Your task to perform on an android device: open app "Lyft - Rideshare, Bikes, Scooters & Transit" Image 0: 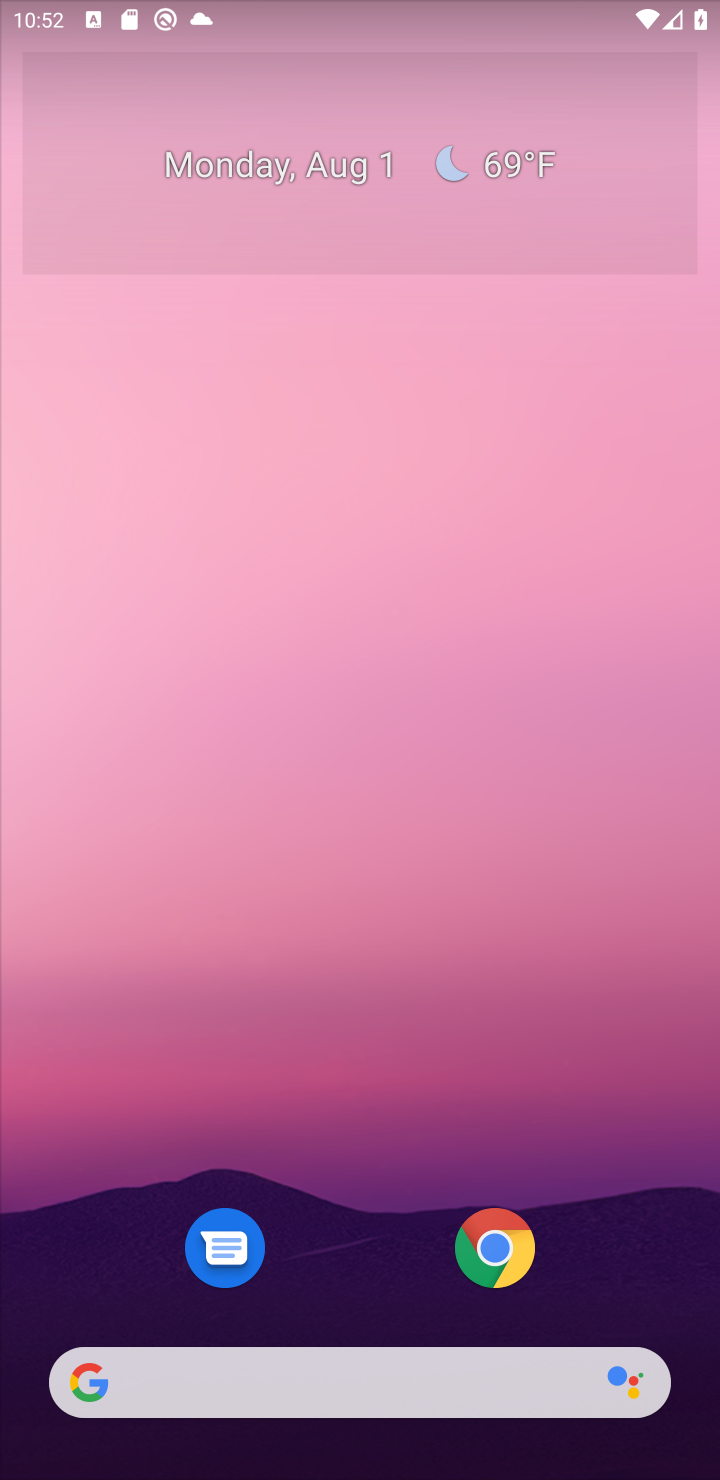
Step 0: drag from (340, 1080) to (391, 157)
Your task to perform on an android device: open app "Lyft - Rideshare, Bikes, Scooters & Transit" Image 1: 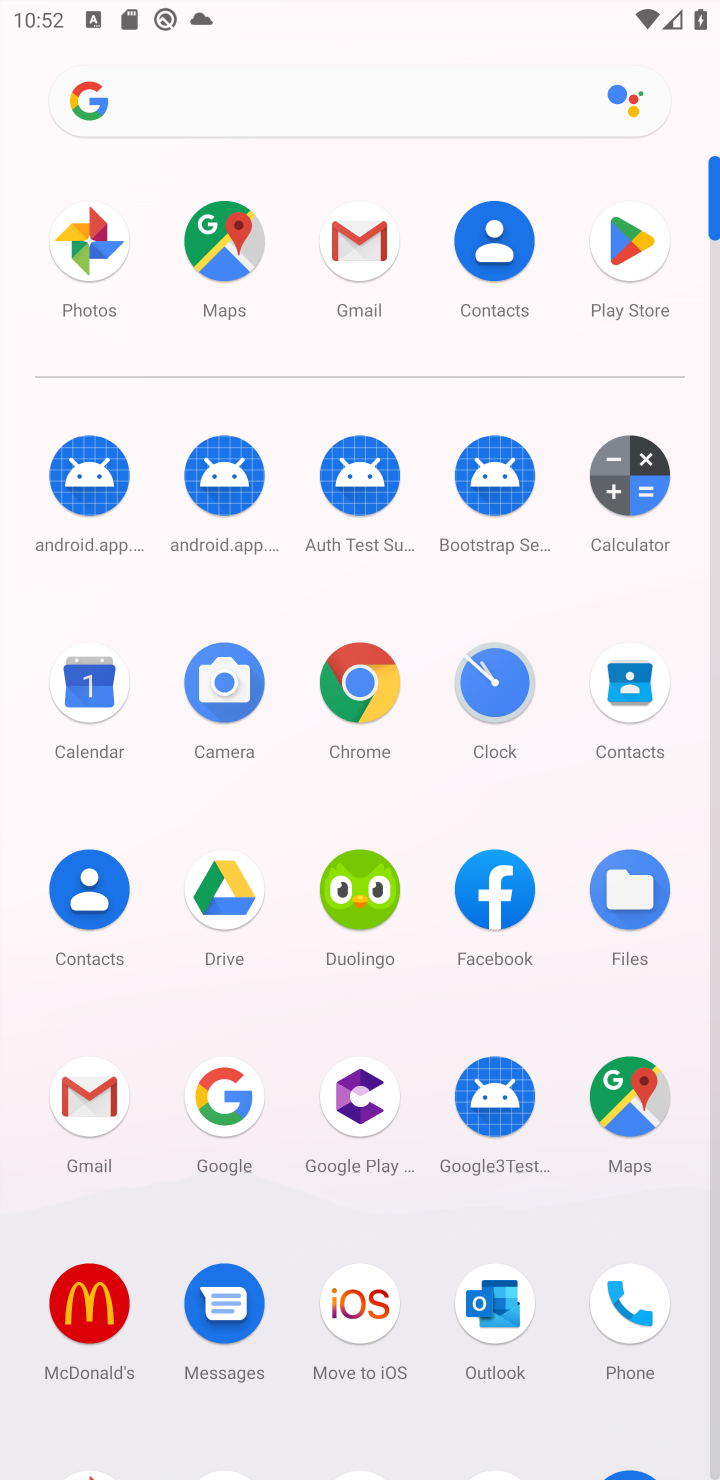
Step 1: drag from (423, 1124) to (441, 315)
Your task to perform on an android device: open app "Lyft - Rideshare, Bikes, Scooters & Transit" Image 2: 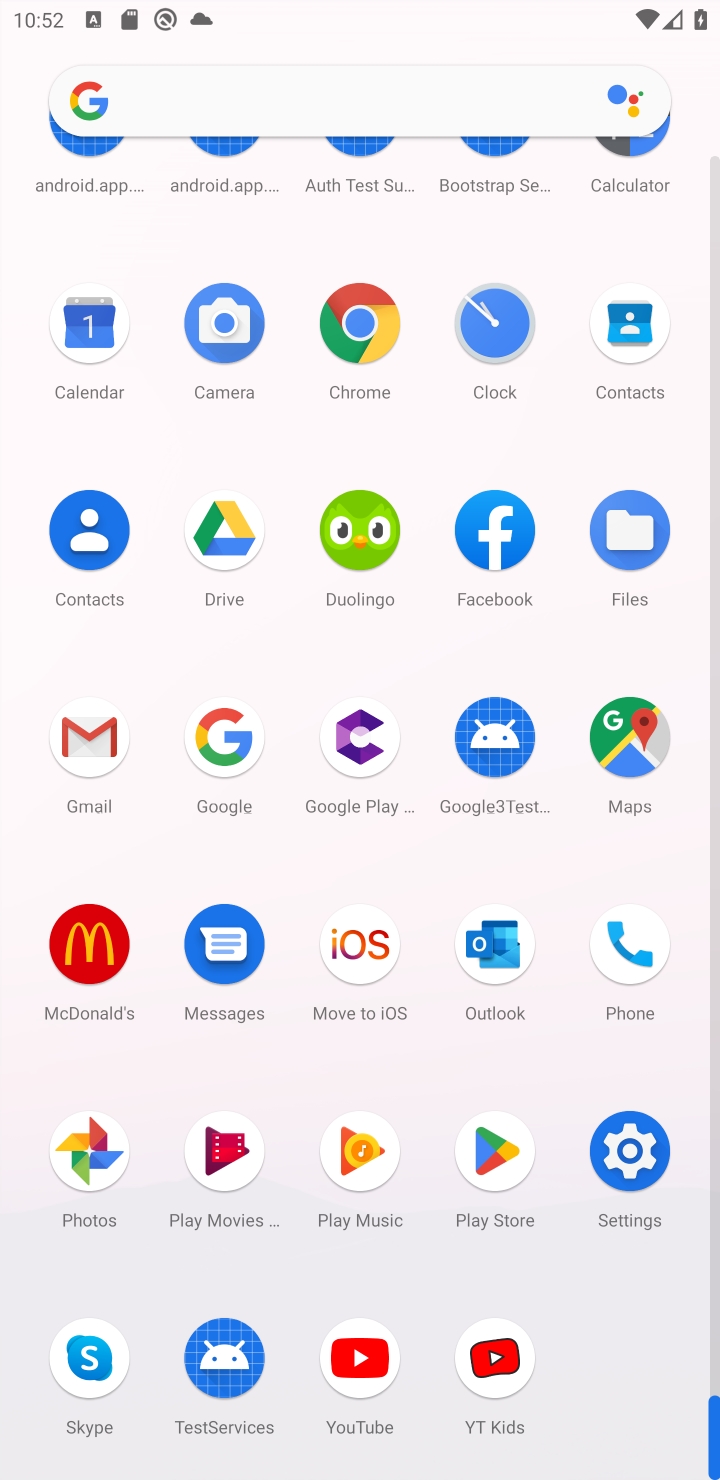
Step 2: click (492, 1142)
Your task to perform on an android device: open app "Lyft - Rideshare, Bikes, Scooters & Transit" Image 3: 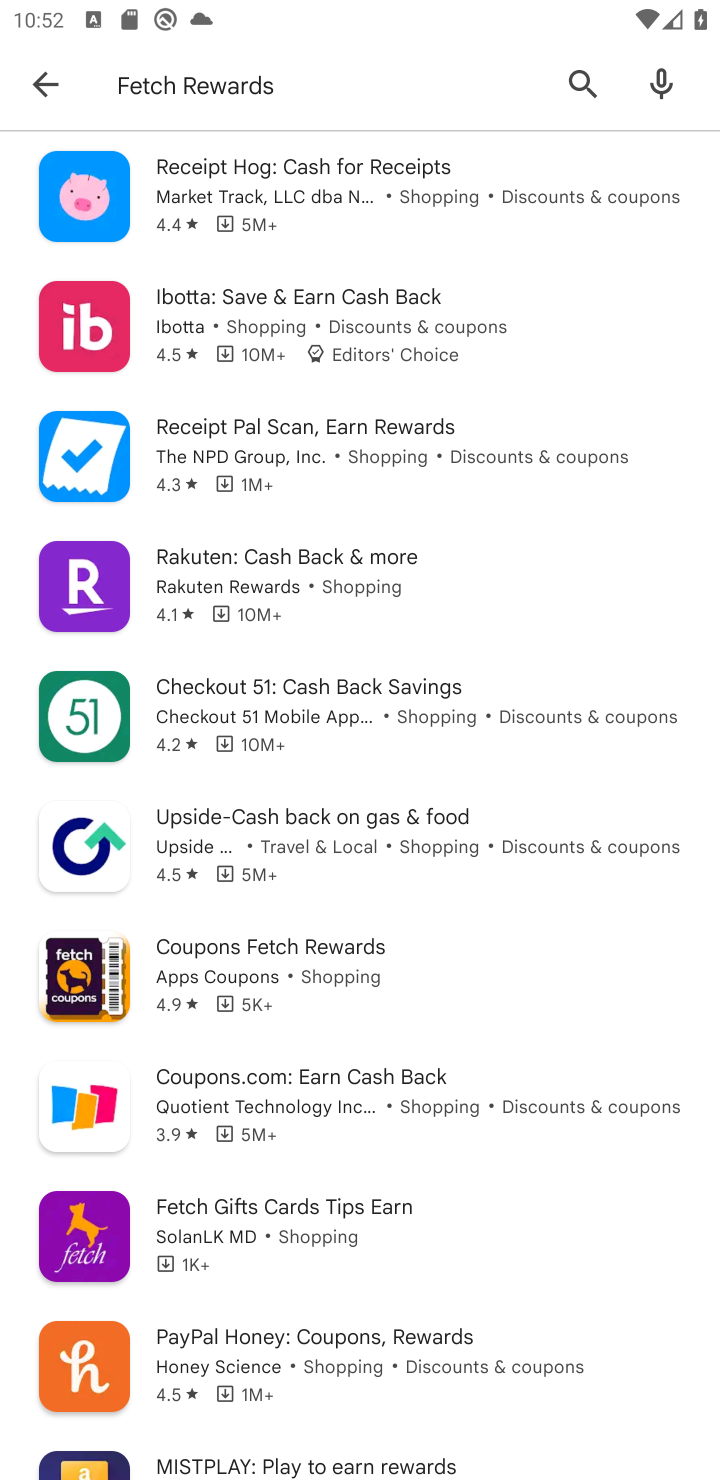
Step 3: click (372, 72)
Your task to perform on an android device: open app "Lyft - Rideshare, Bikes, Scooters & Transit" Image 4: 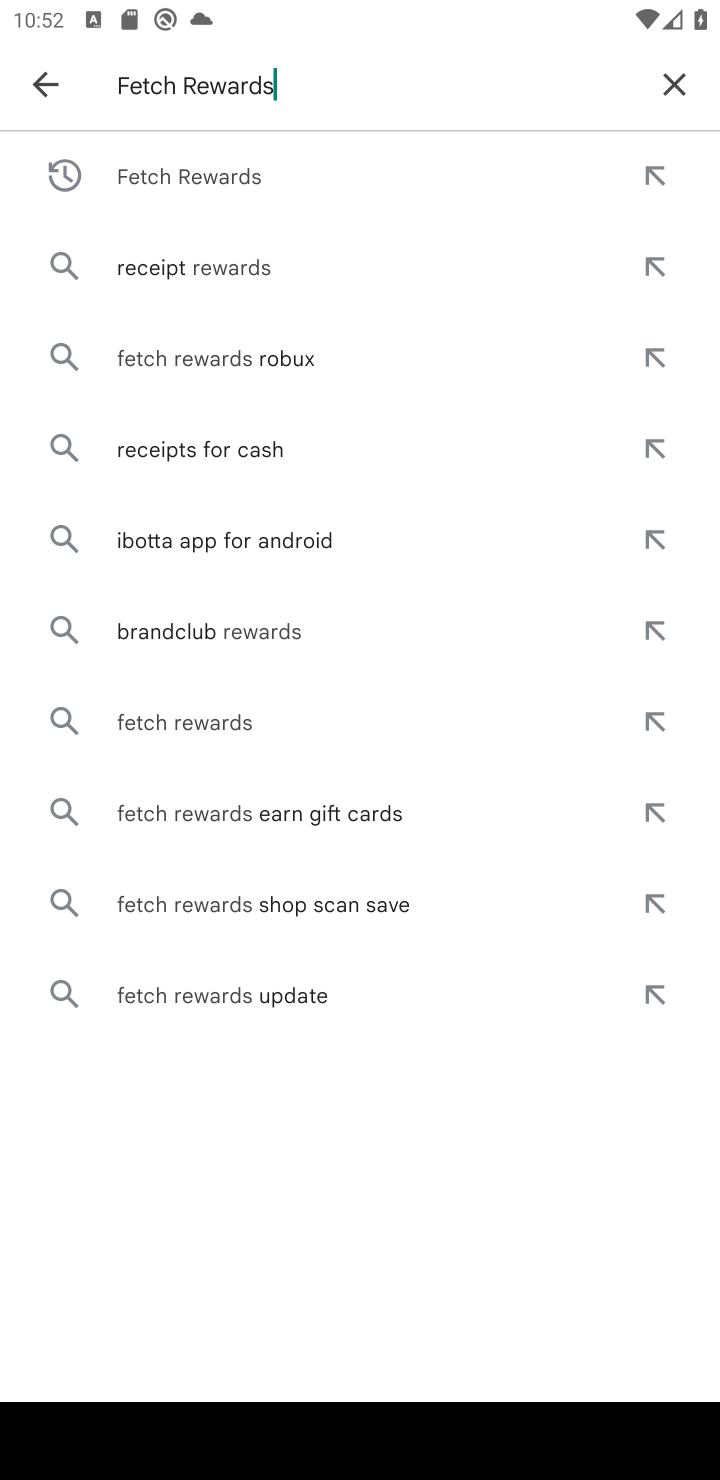
Step 4: click (683, 94)
Your task to perform on an android device: open app "Lyft - Rideshare, Bikes, Scooters & Transit" Image 5: 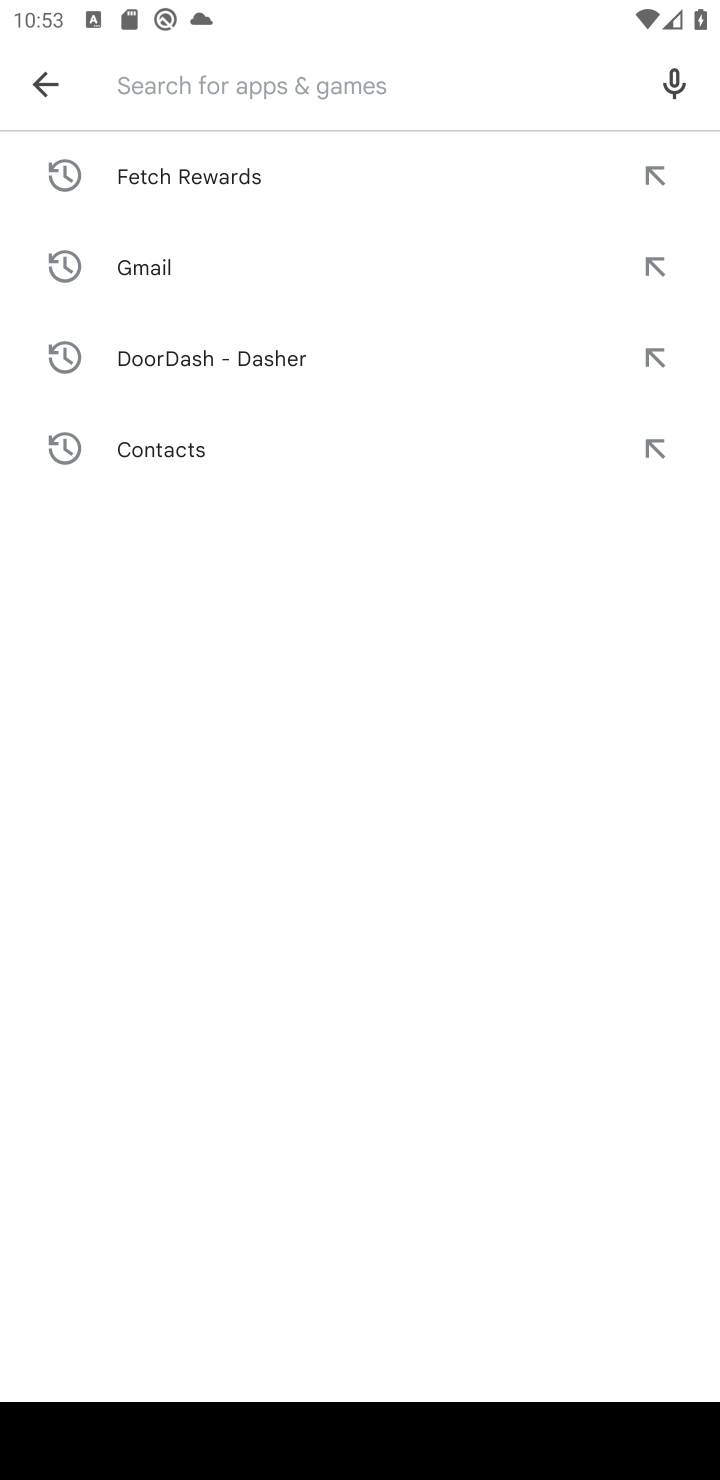
Step 5: type "Lyft - Rideshare, Bikes, Scooters & Transit"
Your task to perform on an android device: open app "Lyft - Rideshare, Bikes, Scooters & Transit" Image 6: 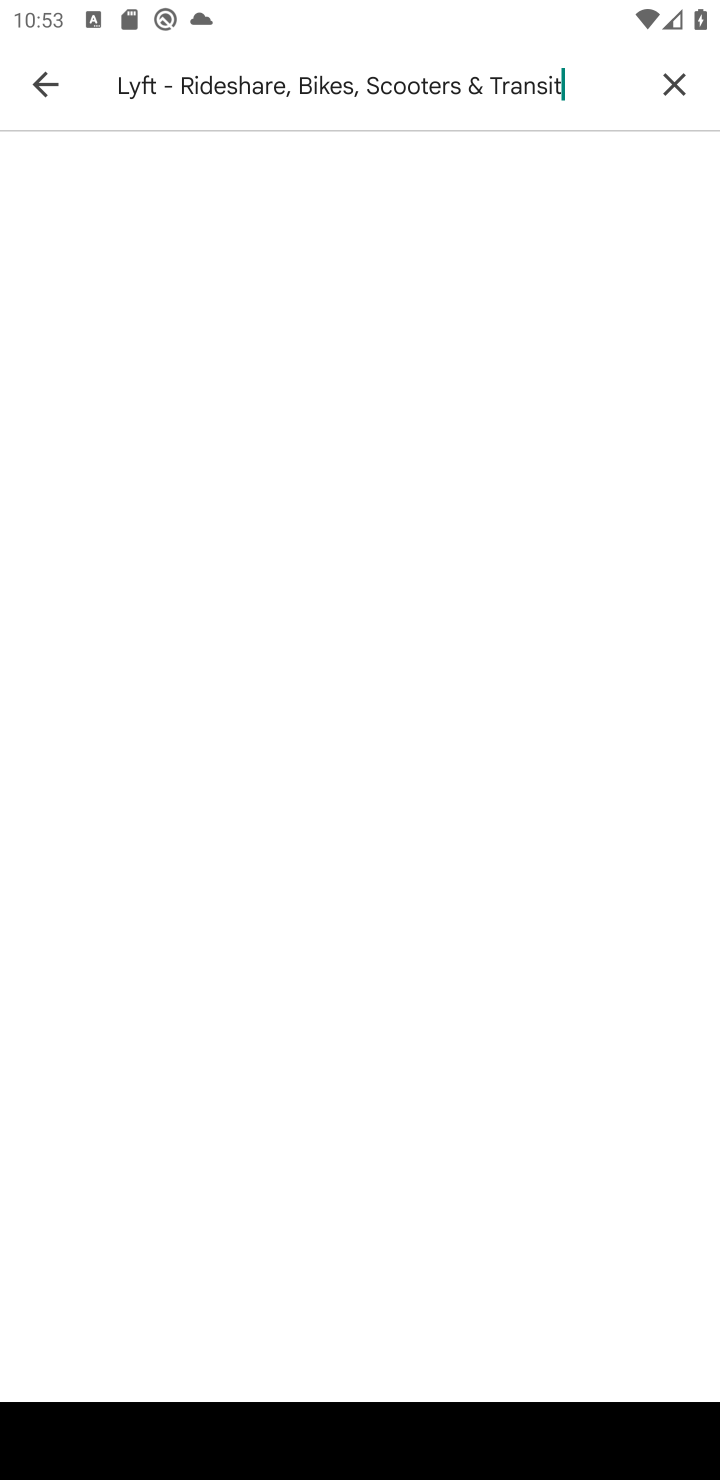
Step 6: press enter
Your task to perform on an android device: open app "Lyft - Rideshare, Bikes, Scooters & Transit" Image 7: 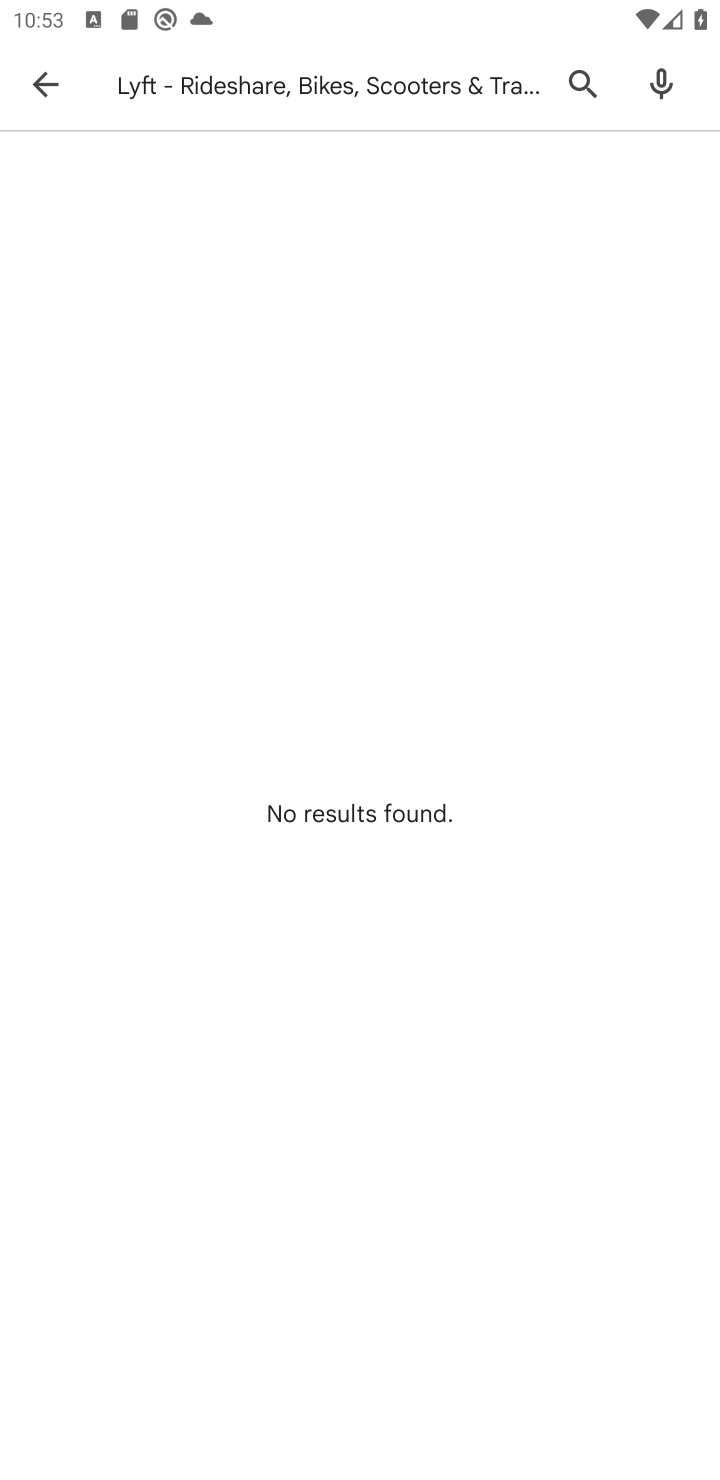
Step 7: click (459, 76)
Your task to perform on an android device: open app "Lyft - Rideshare, Bikes, Scooters & Transit" Image 8: 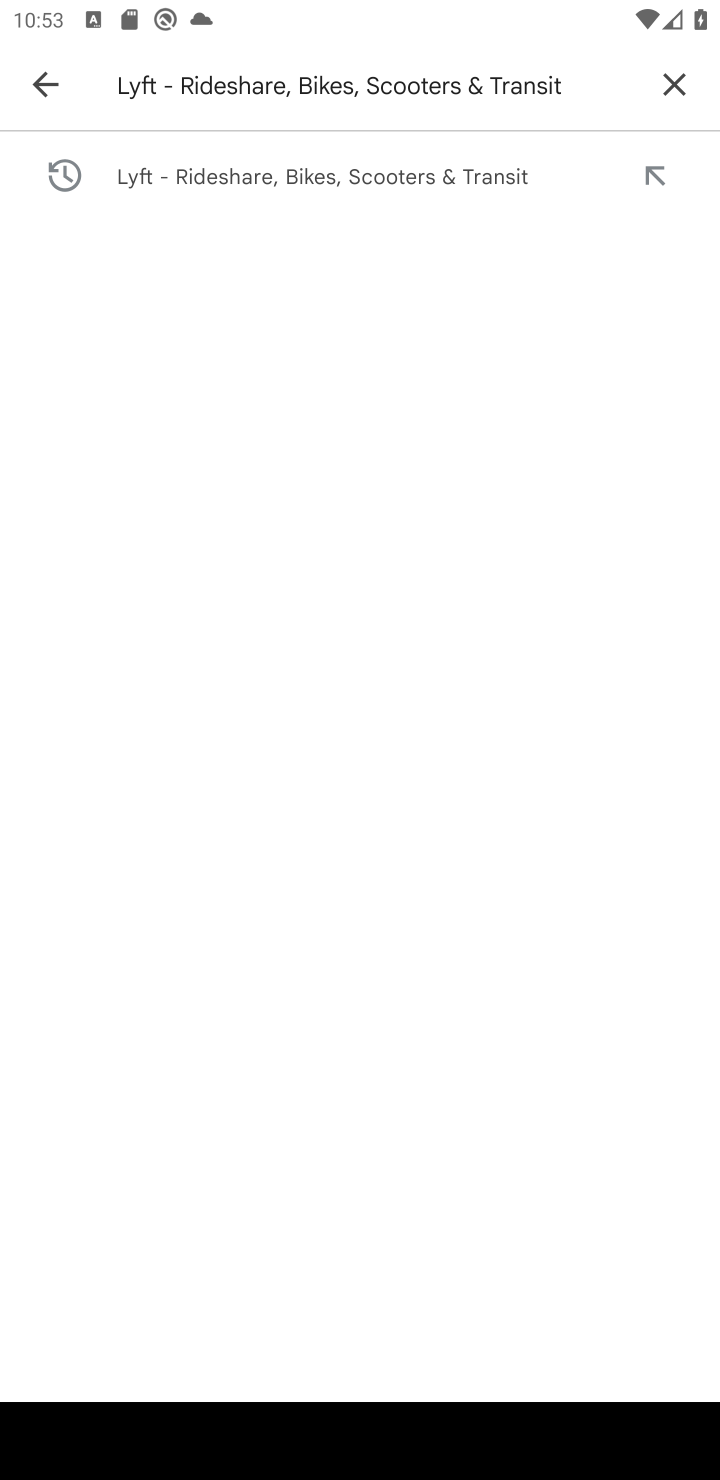
Step 8: click (689, 75)
Your task to perform on an android device: open app "Lyft - Rideshare, Bikes, Scooters & Transit" Image 9: 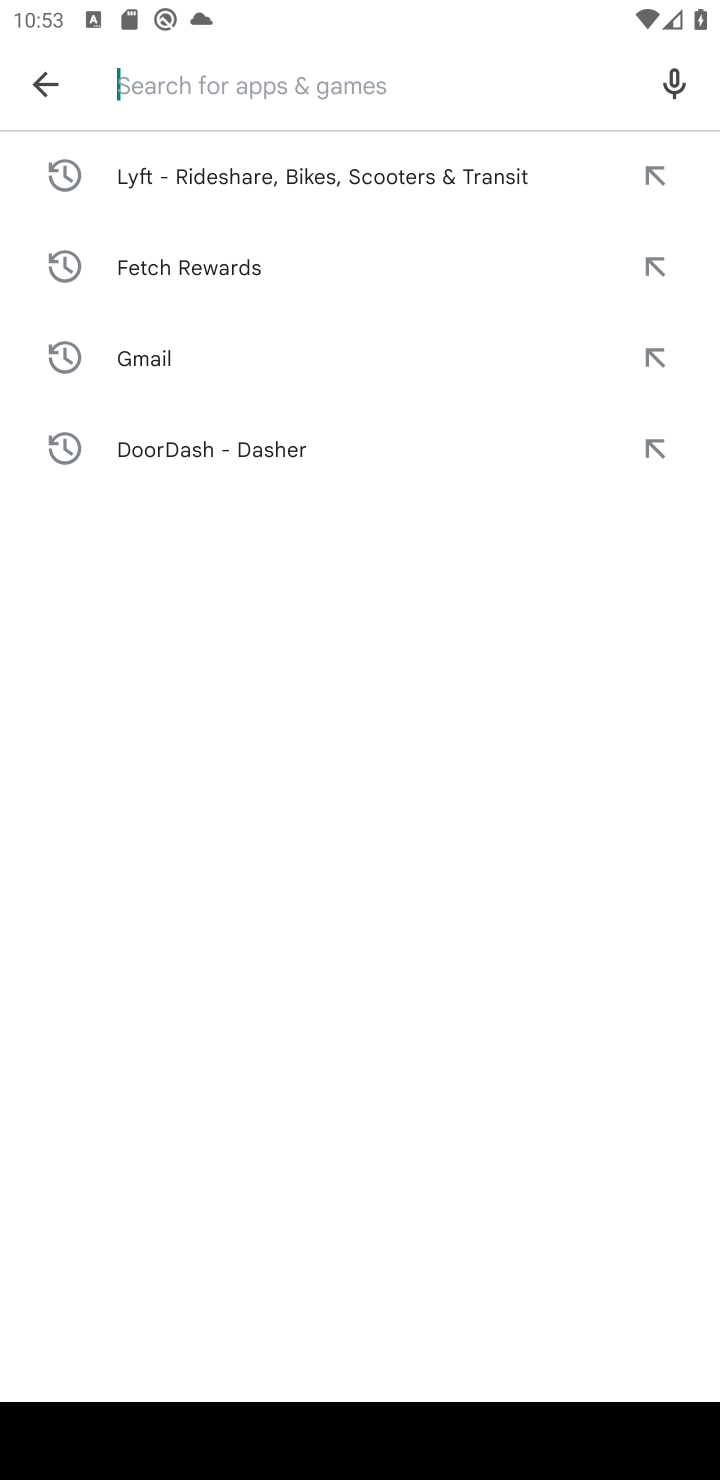
Step 9: type "Lyft"
Your task to perform on an android device: open app "Lyft - Rideshare, Bikes, Scooters & Transit" Image 10: 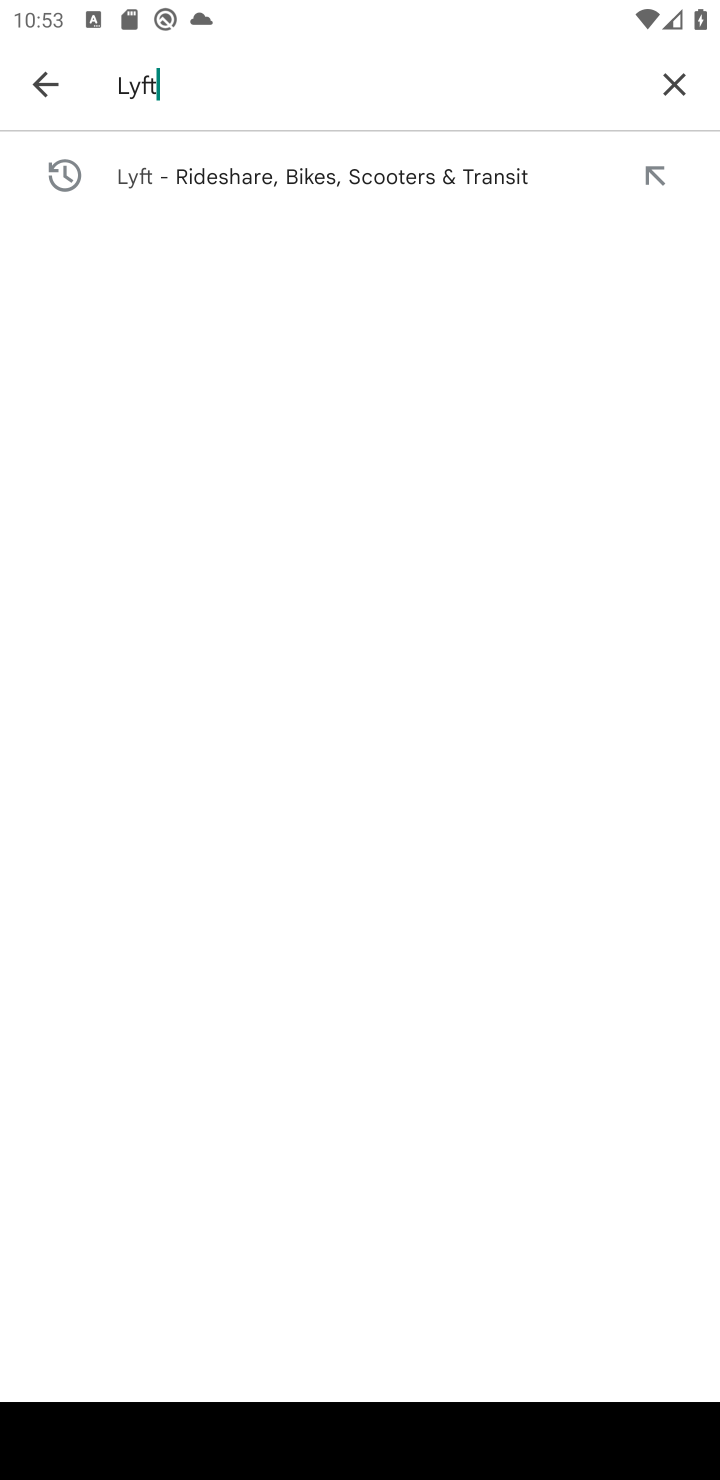
Step 10: press enter
Your task to perform on an android device: open app "Lyft - Rideshare, Bikes, Scooters & Transit" Image 11: 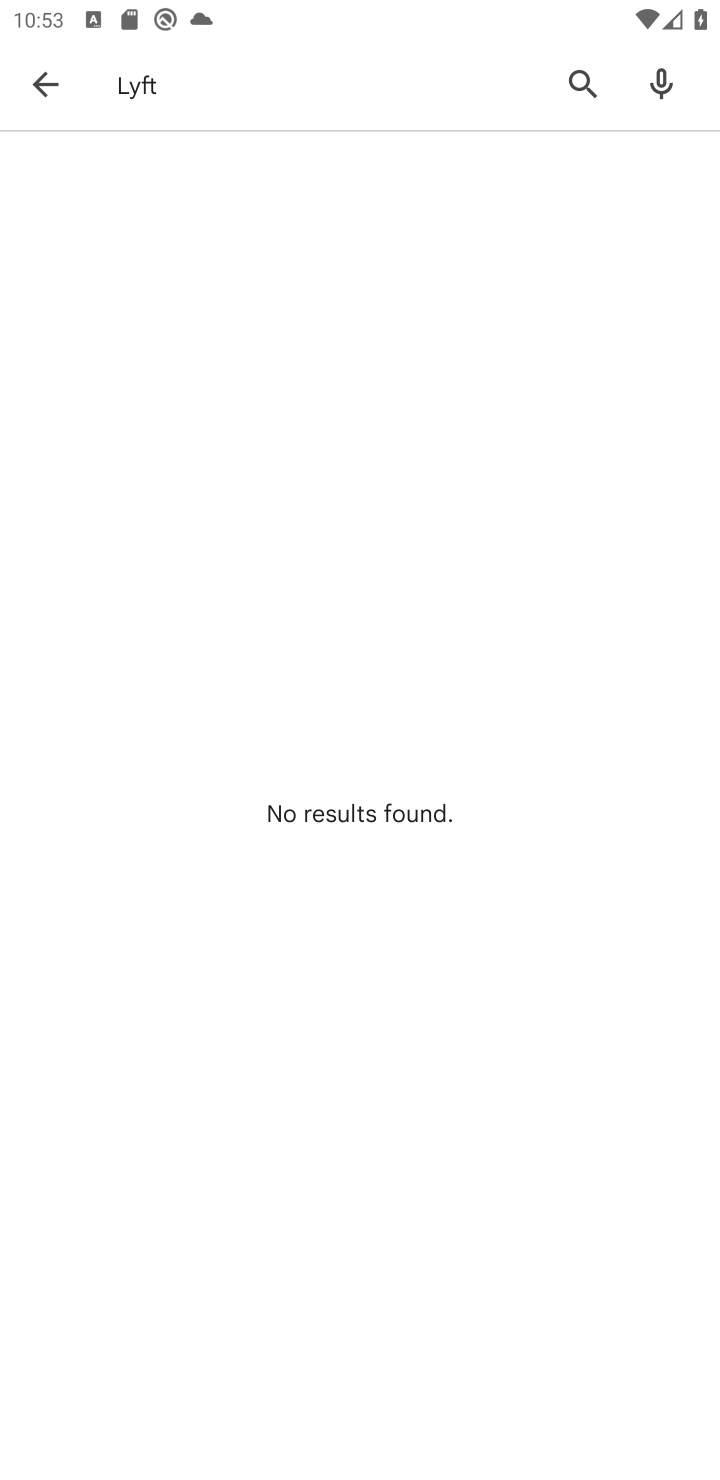
Step 11: task complete